Your task to perform on an android device: set an alarm Image 0: 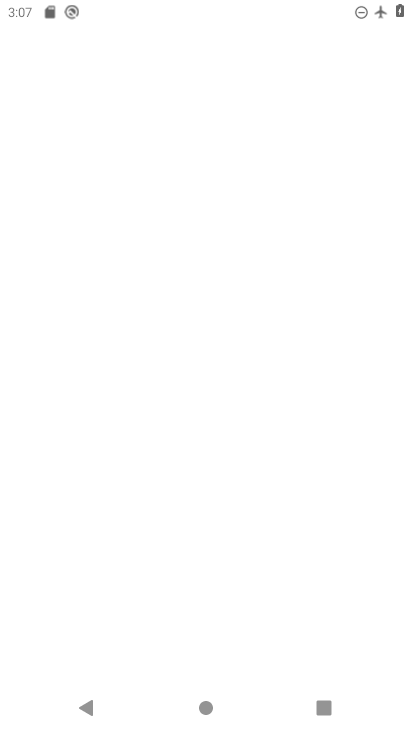
Step 0: drag from (218, 640) to (227, 298)
Your task to perform on an android device: set an alarm Image 1: 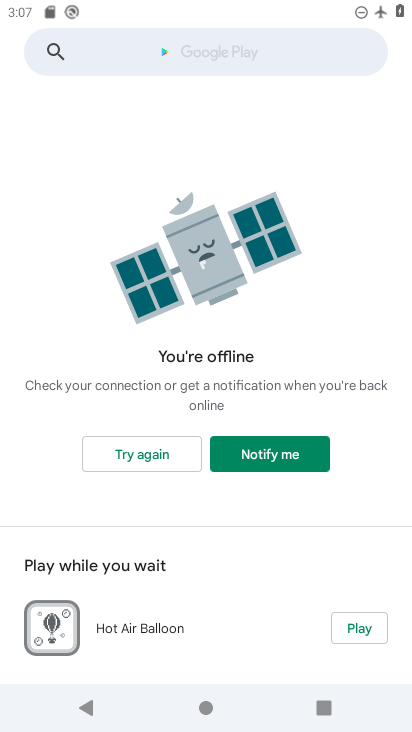
Step 1: press home button
Your task to perform on an android device: set an alarm Image 2: 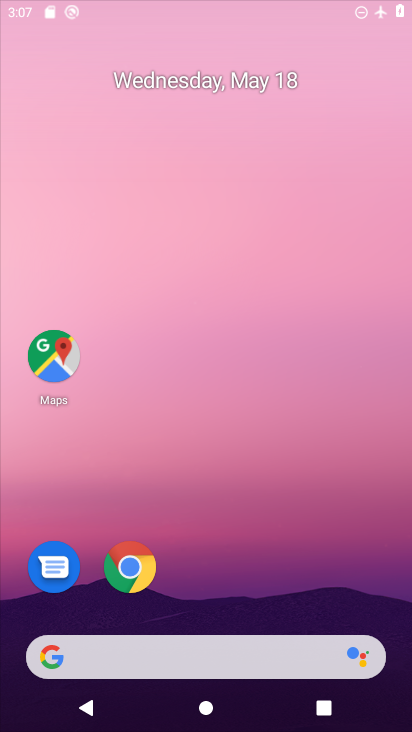
Step 2: drag from (240, 592) to (240, 229)
Your task to perform on an android device: set an alarm Image 3: 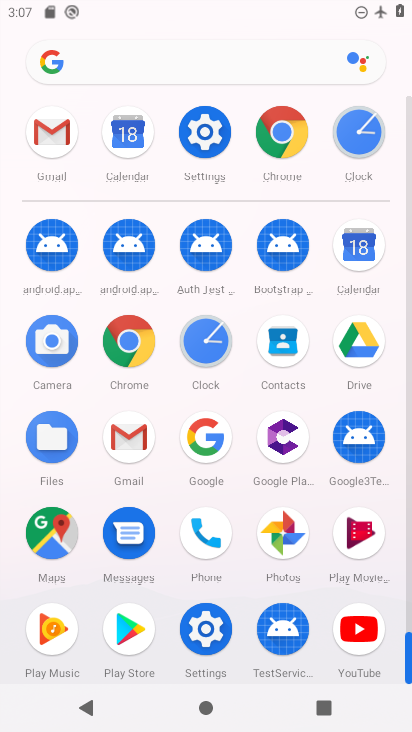
Step 3: click (211, 327)
Your task to perform on an android device: set an alarm Image 4: 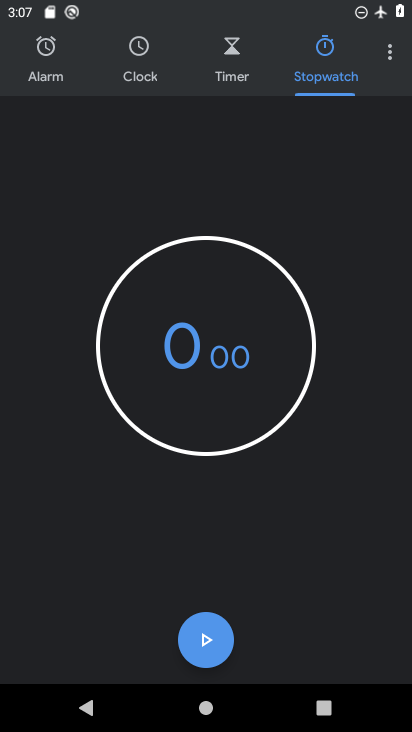
Step 4: click (50, 58)
Your task to perform on an android device: set an alarm Image 5: 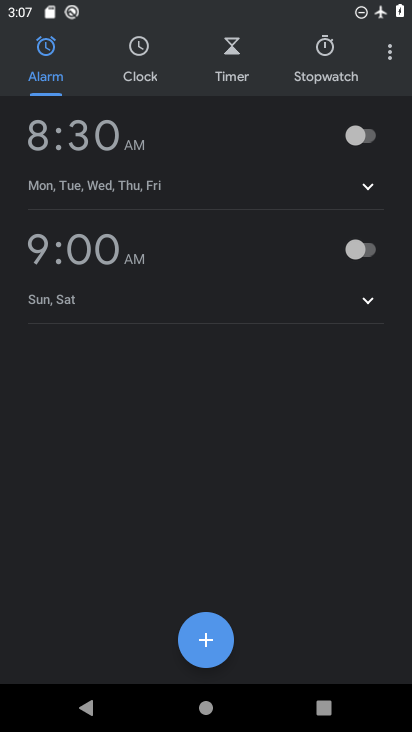
Step 5: click (366, 146)
Your task to perform on an android device: set an alarm Image 6: 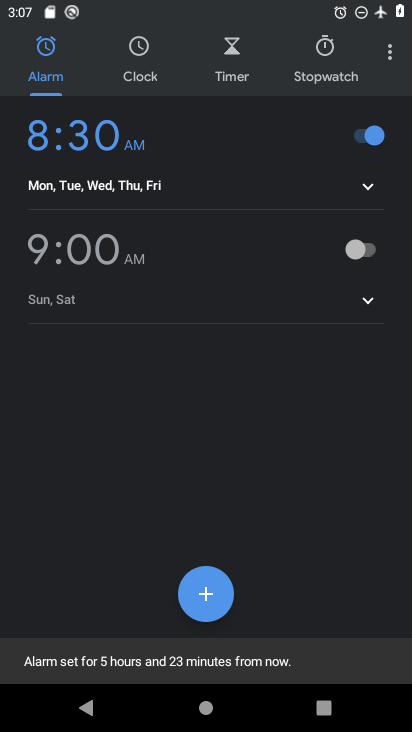
Step 6: task complete